Your task to perform on an android device: change timer sound Image 0: 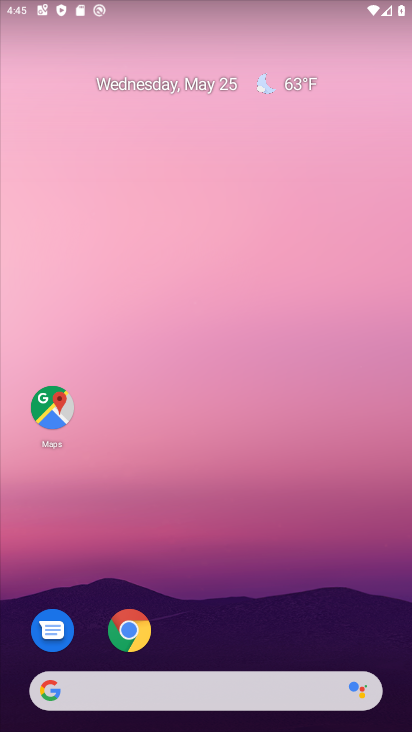
Step 0: drag from (244, 645) to (325, 47)
Your task to perform on an android device: change timer sound Image 1: 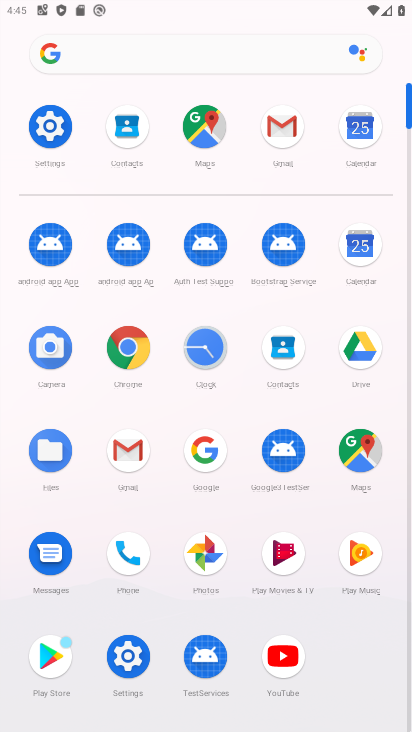
Step 1: click (46, 116)
Your task to perform on an android device: change timer sound Image 2: 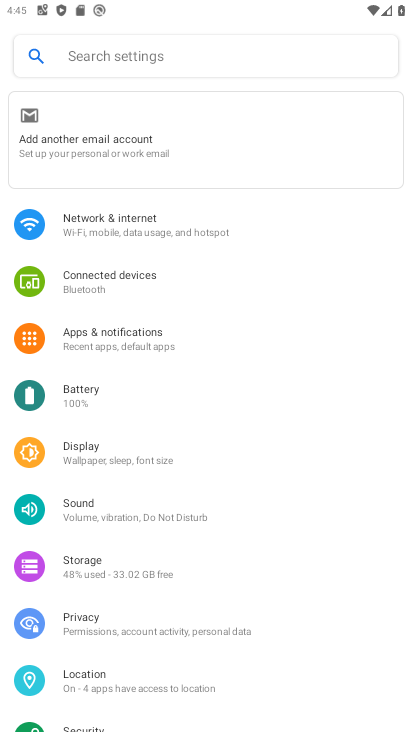
Step 2: click (84, 511)
Your task to perform on an android device: change timer sound Image 3: 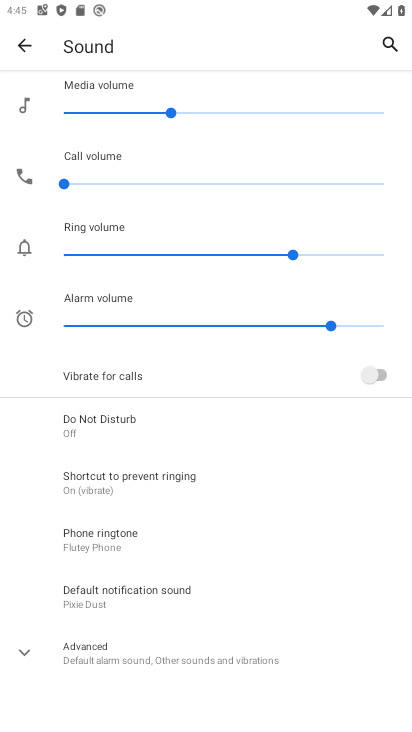
Step 3: task complete